Your task to perform on an android device: toggle pop-ups in chrome Image 0: 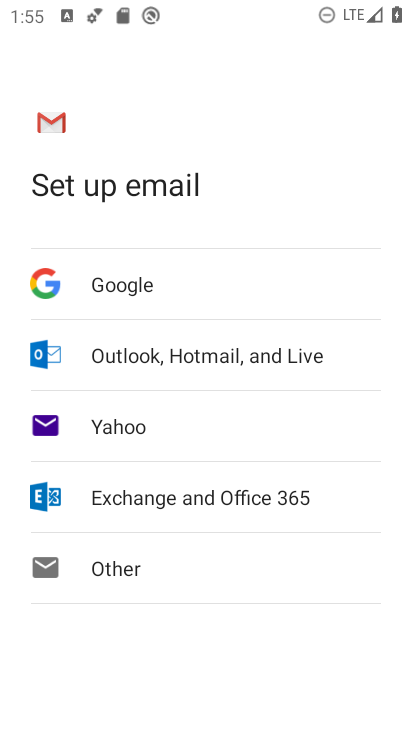
Step 0: press home button
Your task to perform on an android device: toggle pop-ups in chrome Image 1: 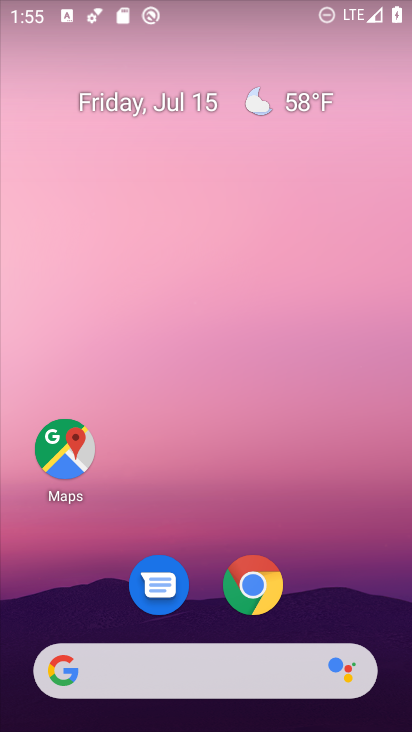
Step 1: click (269, 585)
Your task to perform on an android device: toggle pop-ups in chrome Image 2: 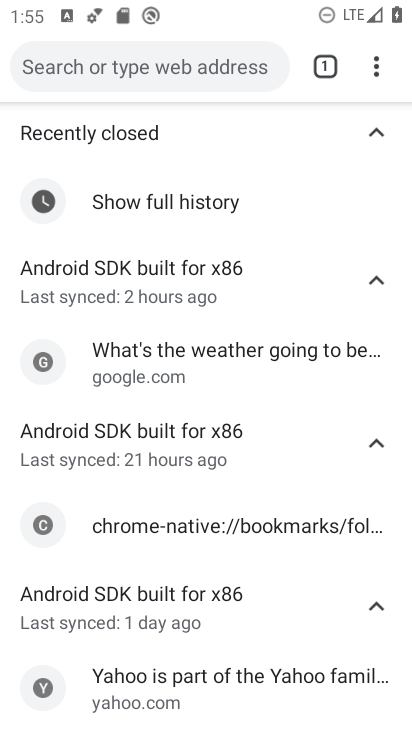
Step 2: click (376, 65)
Your task to perform on an android device: toggle pop-ups in chrome Image 3: 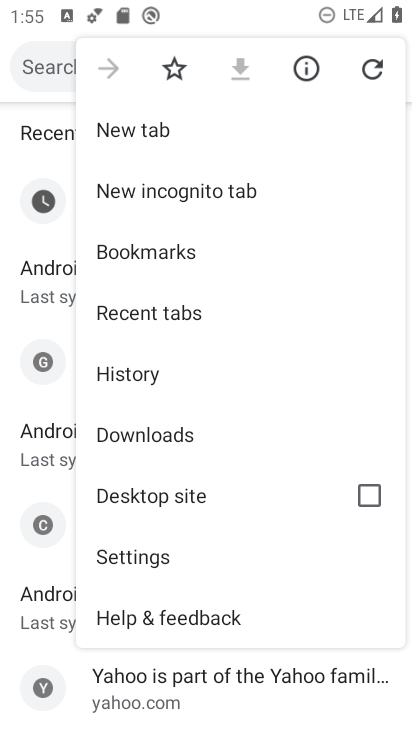
Step 3: click (152, 555)
Your task to perform on an android device: toggle pop-ups in chrome Image 4: 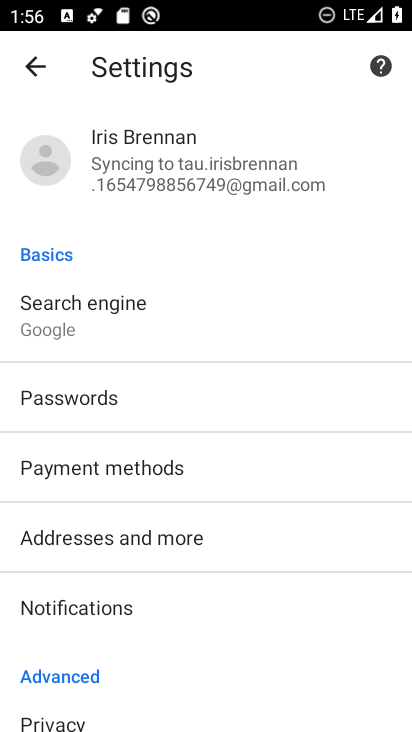
Step 4: drag from (244, 620) to (265, 322)
Your task to perform on an android device: toggle pop-ups in chrome Image 5: 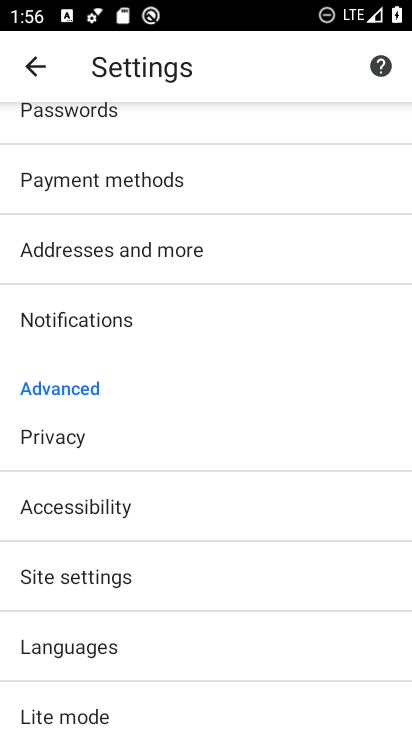
Step 5: drag from (230, 624) to (203, 367)
Your task to perform on an android device: toggle pop-ups in chrome Image 6: 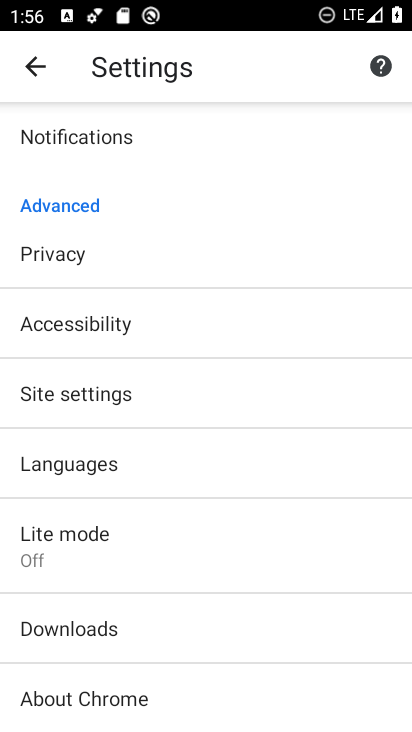
Step 6: click (103, 390)
Your task to perform on an android device: toggle pop-ups in chrome Image 7: 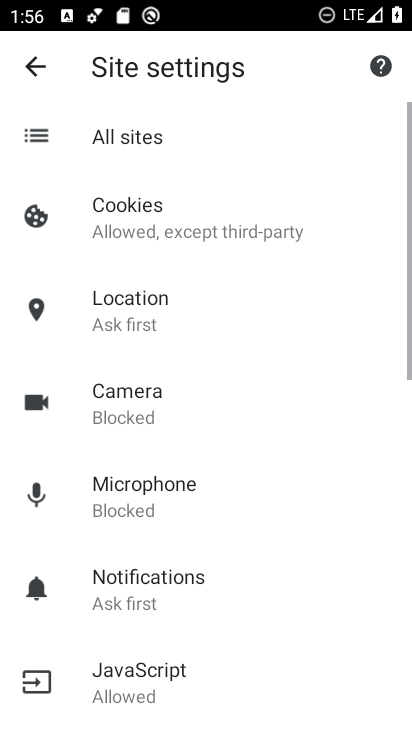
Step 7: drag from (255, 603) to (278, 333)
Your task to perform on an android device: toggle pop-ups in chrome Image 8: 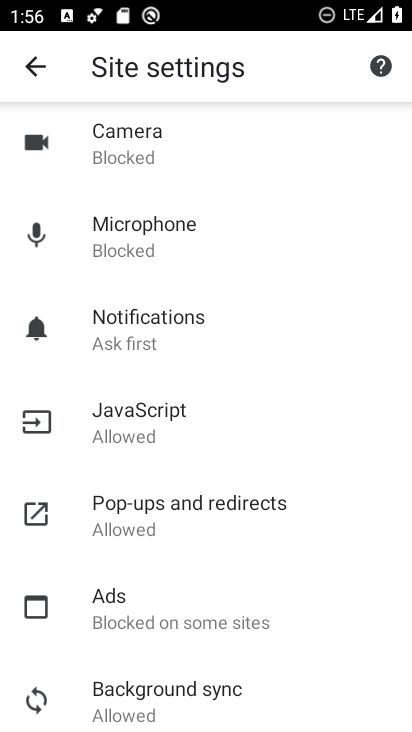
Step 8: click (231, 517)
Your task to perform on an android device: toggle pop-ups in chrome Image 9: 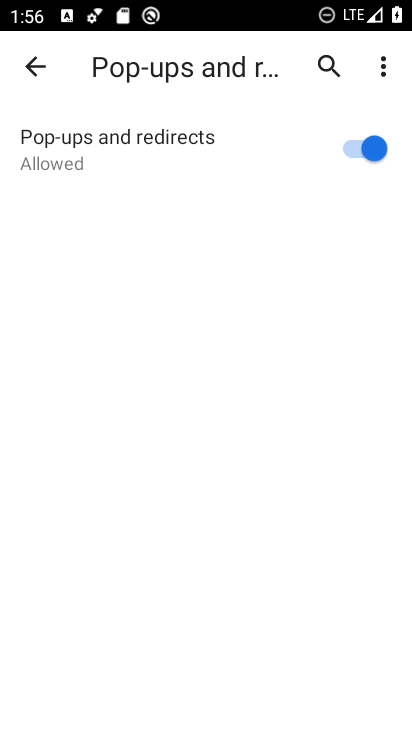
Step 9: click (367, 138)
Your task to perform on an android device: toggle pop-ups in chrome Image 10: 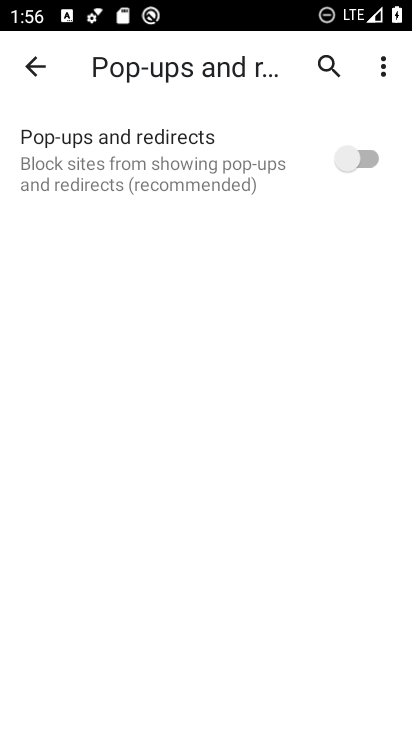
Step 10: task complete